Your task to perform on an android device: What's the weather? Image 0: 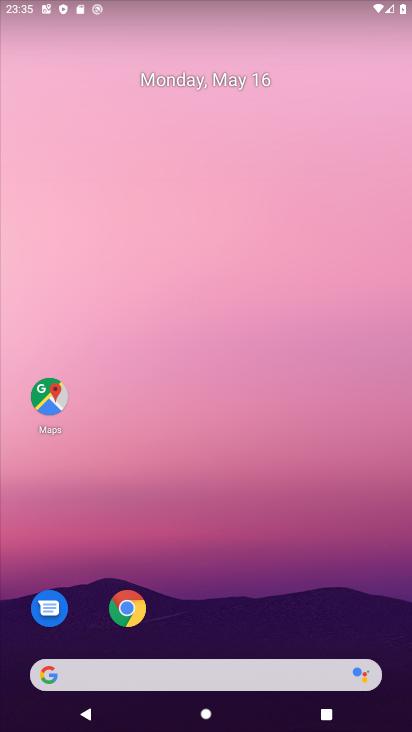
Step 0: click (53, 674)
Your task to perform on an android device: What's the weather? Image 1: 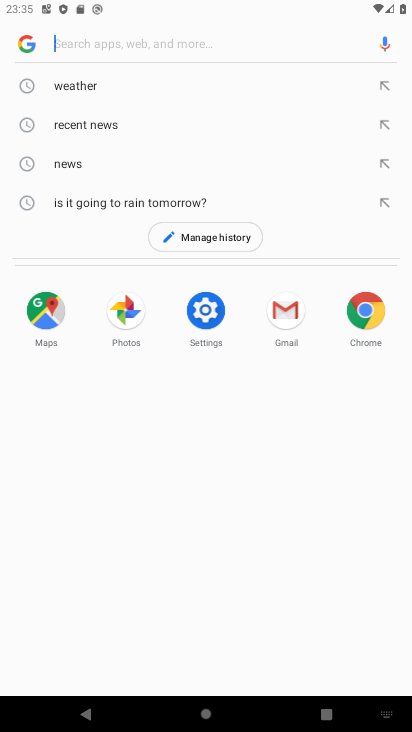
Step 1: click (80, 89)
Your task to perform on an android device: What's the weather? Image 2: 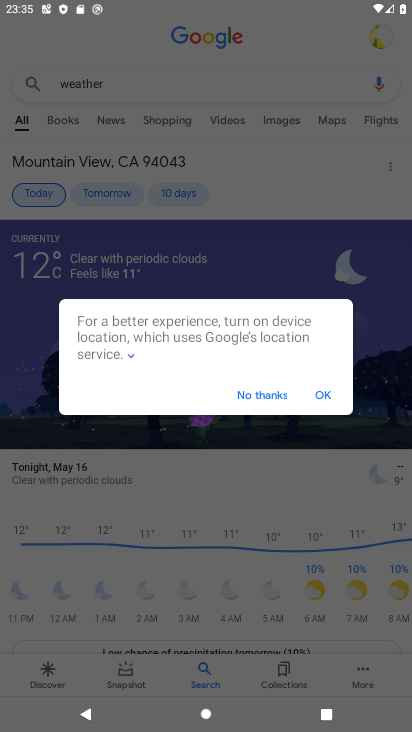
Step 2: click (315, 387)
Your task to perform on an android device: What's the weather? Image 3: 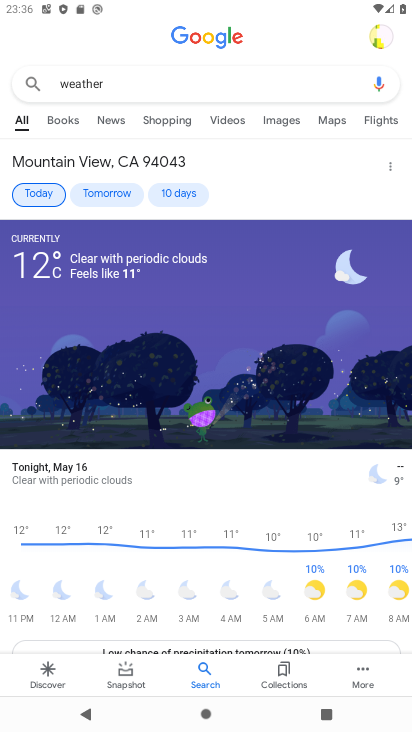
Step 3: task complete